Your task to perform on an android device: Search for Italian restaurants on Maps Image 0: 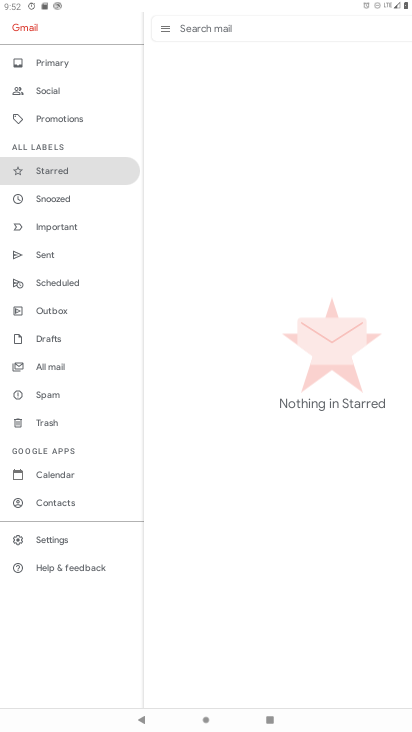
Step 0: press home button
Your task to perform on an android device: Search for Italian restaurants on Maps Image 1: 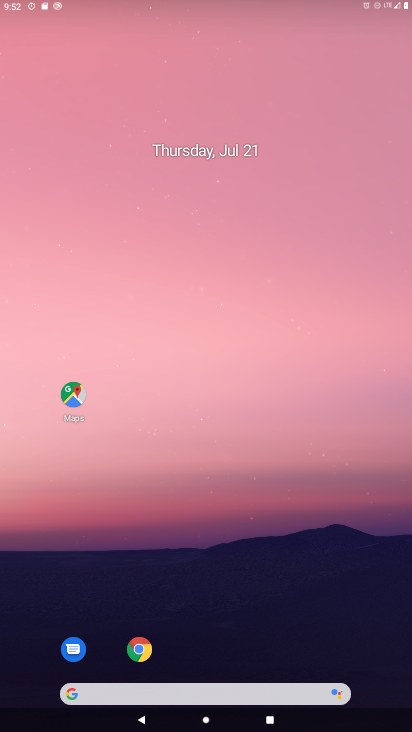
Step 1: drag from (369, 677) to (190, 49)
Your task to perform on an android device: Search for Italian restaurants on Maps Image 2: 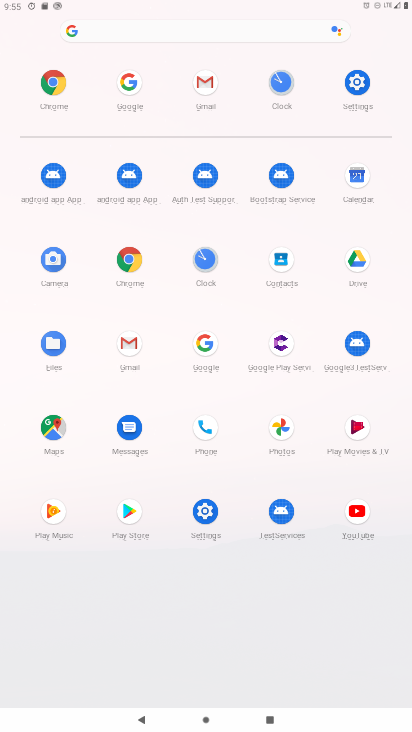
Step 2: click (54, 423)
Your task to perform on an android device: Search for Italian restaurants on Maps Image 3: 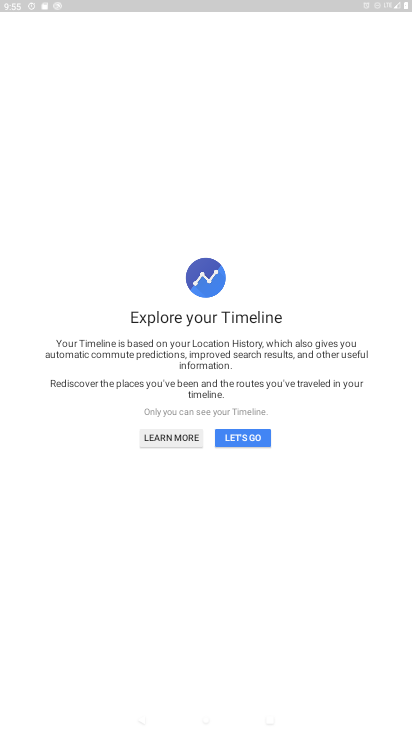
Step 3: press back button
Your task to perform on an android device: Search for Italian restaurants on Maps Image 4: 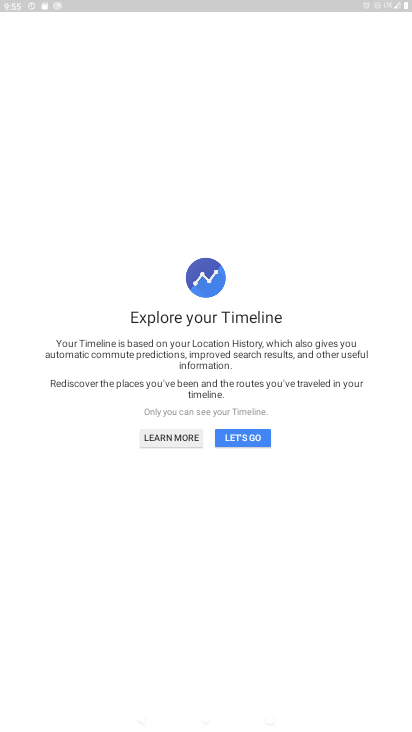
Step 4: press back button
Your task to perform on an android device: Search for Italian restaurants on Maps Image 5: 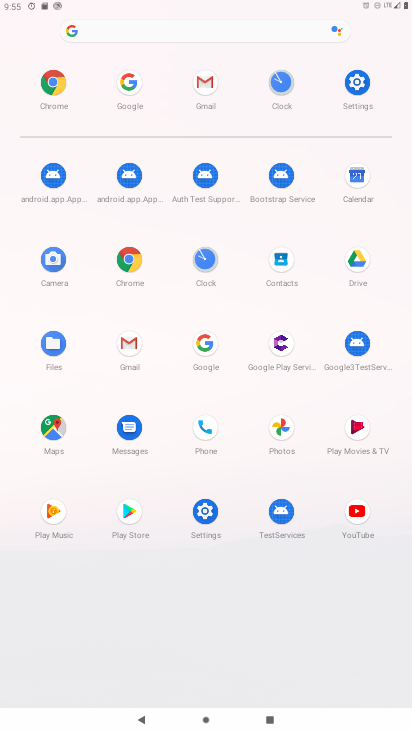
Step 5: click (42, 433)
Your task to perform on an android device: Search for Italian restaurants on Maps Image 6: 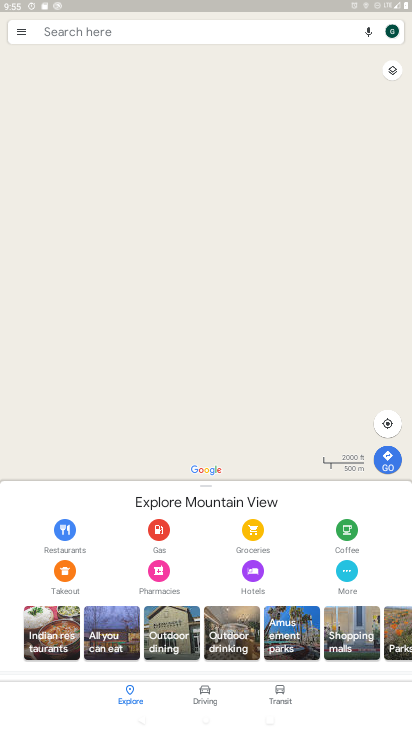
Step 6: click (142, 40)
Your task to perform on an android device: Search for Italian restaurants on Maps Image 7: 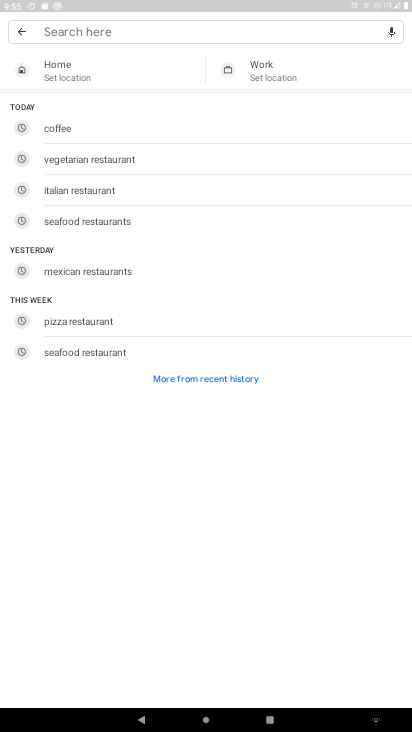
Step 7: click (67, 187)
Your task to perform on an android device: Search for Italian restaurants on Maps Image 8: 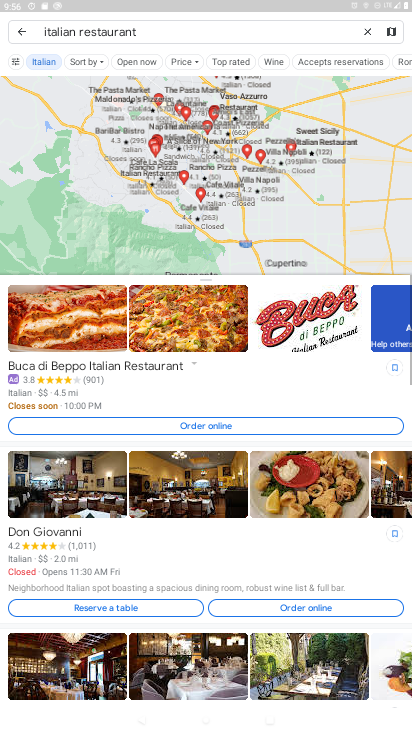
Step 8: task complete